Your task to perform on an android device: What is the recent news? Image 0: 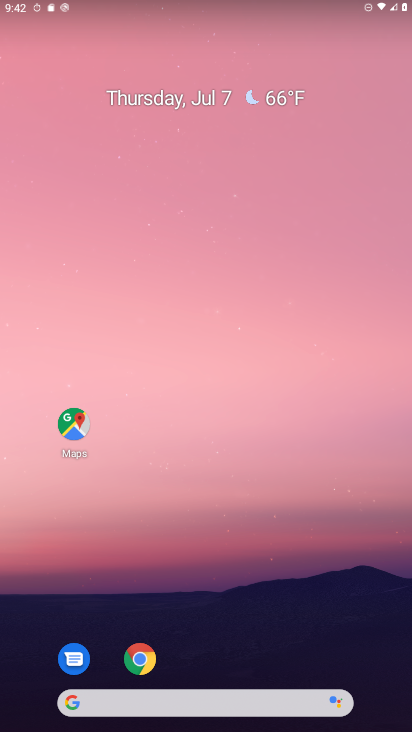
Step 0: drag from (385, 679) to (304, 81)
Your task to perform on an android device: What is the recent news? Image 1: 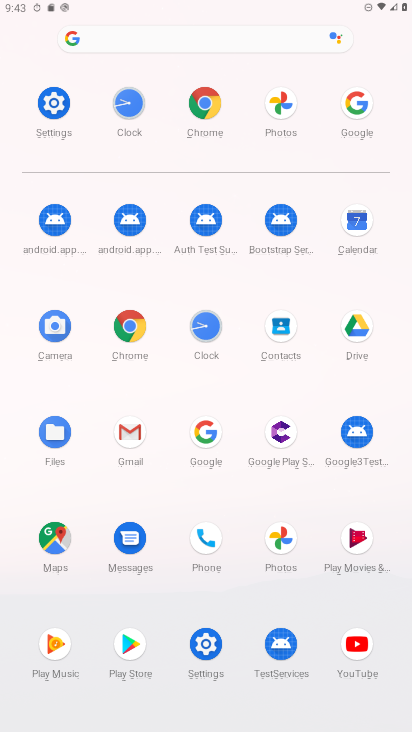
Step 1: click (208, 434)
Your task to perform on an android device: What is the recent news? Image 2: 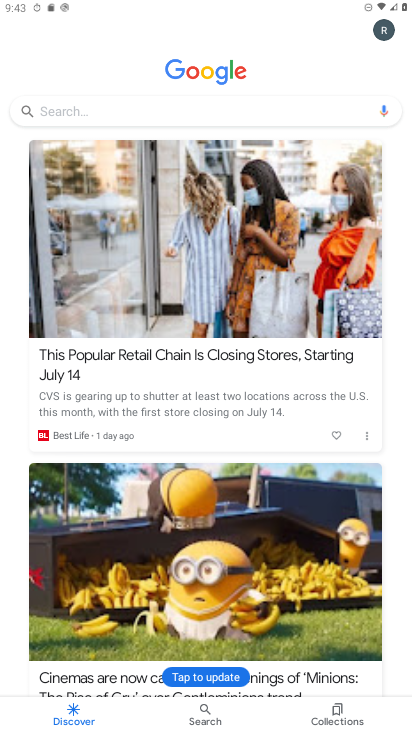
Step 2: click (76, 109)
Your task to perform on an android device: What is the recent news? Image 3: 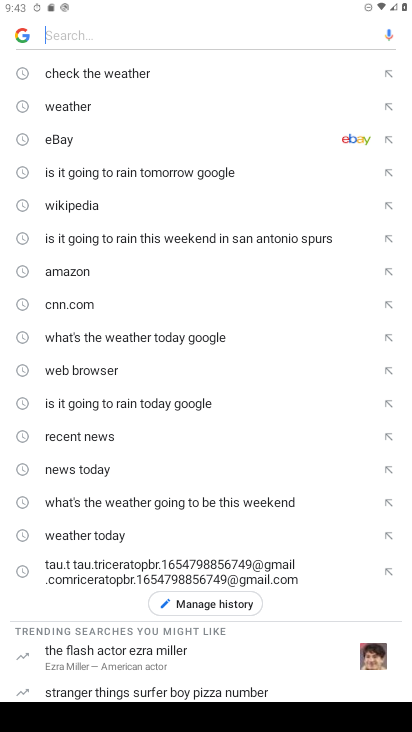
Step 3: type "recent news?"
Your task to perform on an android device: What is the recent news? Image 4: 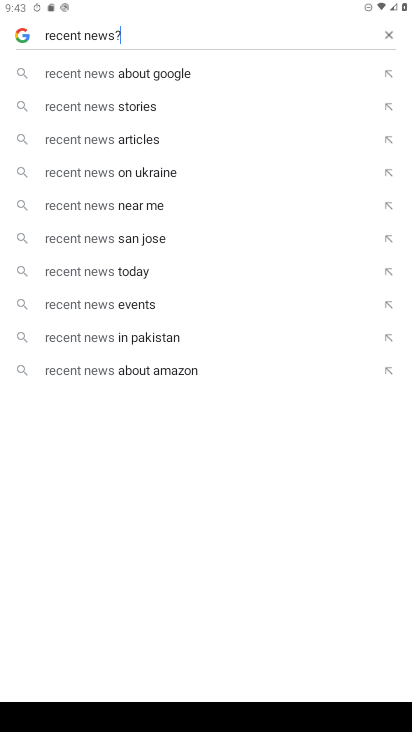
Step 4: click (121, 81)
Your task to perform on an android device: What is the recent news? Image 5: 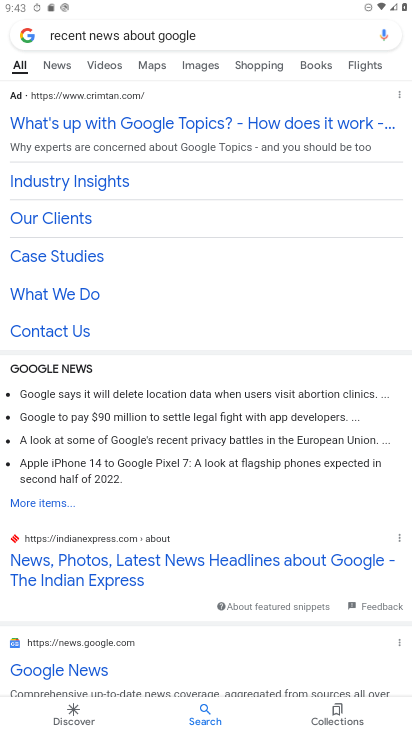
Step 5: task complete